Your task to perform on an android device: change notification settings in the gmail app Image 0: 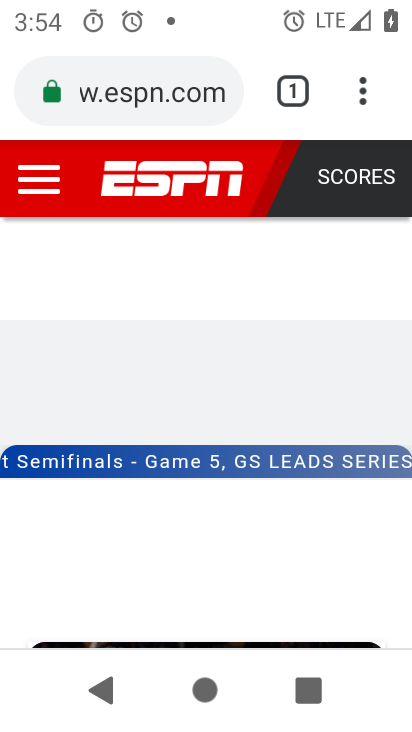
Step 0: press home button
Your task to perform on an android device: change notification settings in the gmail app Image 1: 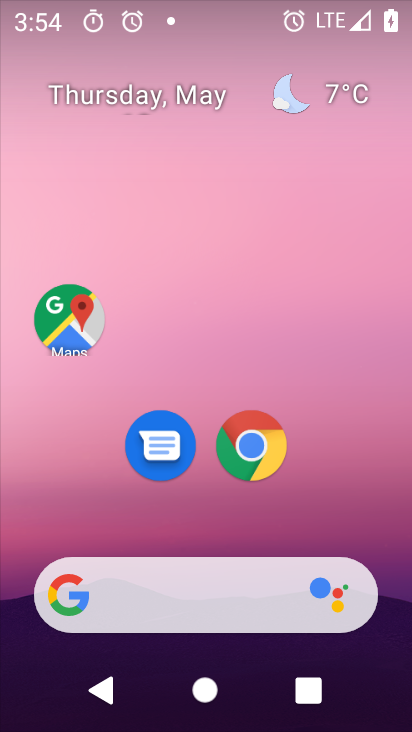
Step 1: drag from (367, 540) to (390, 2)
Your task to perform on an android device: change notification settings in the gmail app Image 2: 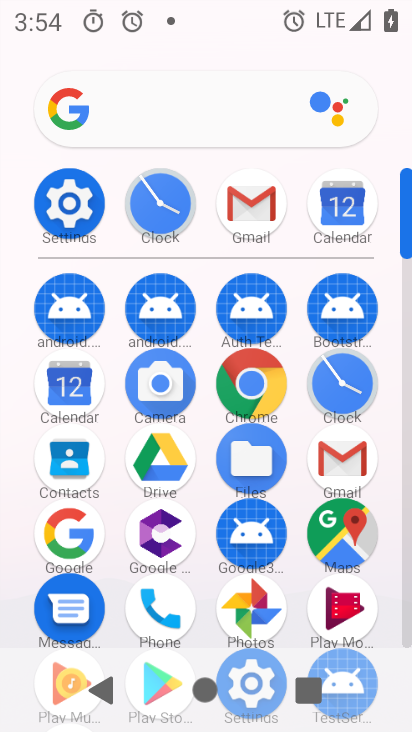
Step 2: click (252, 222)
Your task to perform on an android device: change notification settings in the gmail app Image 3: 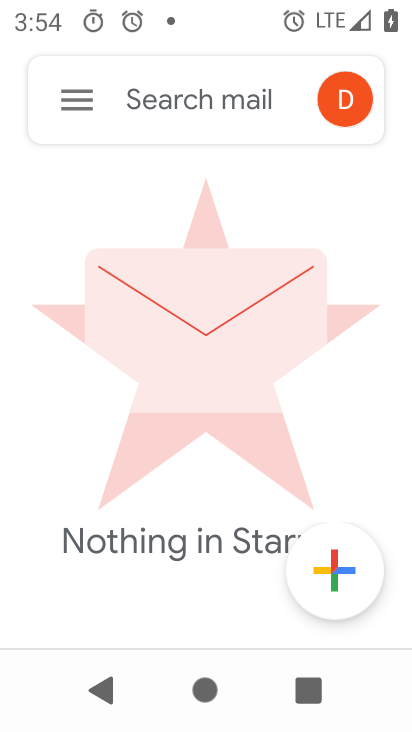
Step 3: click (69, 101)
Your task to perform on an android device: change notification settings in the gmail app Image 4: 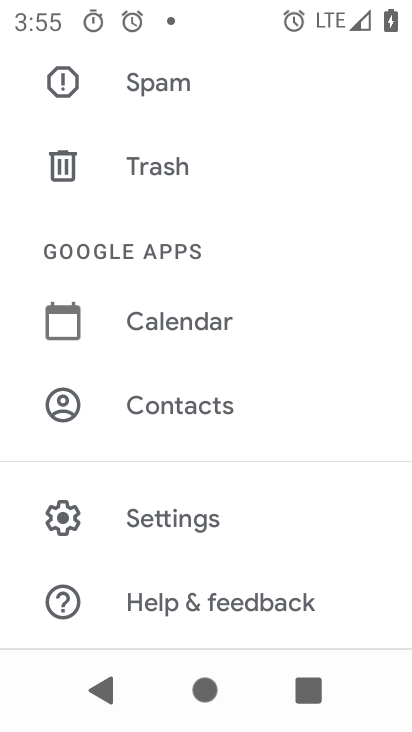
Step 4: click (174, 512)
Your task to perform on an android device: change notification settings in the gmail app Image 5: 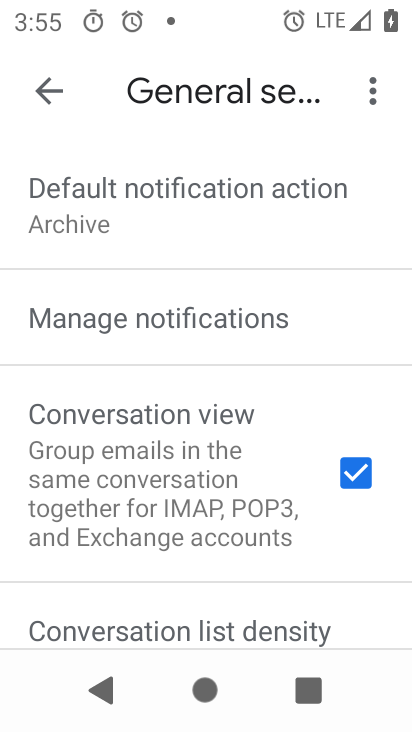
Step 5: click (132, 321)
Your task to perform on an android device: change notification settings in the gmail app Image 6: 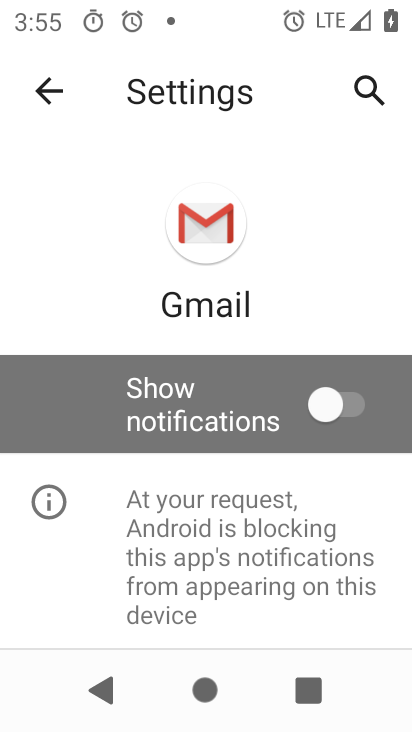
Step 6: click (340, 398)
Your task to perform on an android device: change notification settings in the gmail app Image 7: 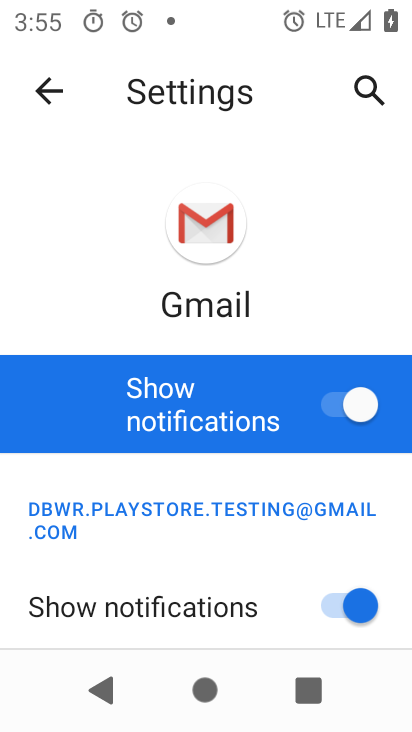
Step 7: task complete